Your task to perform on an android device: Open the phone app and click the voicemail tab. Image 0: 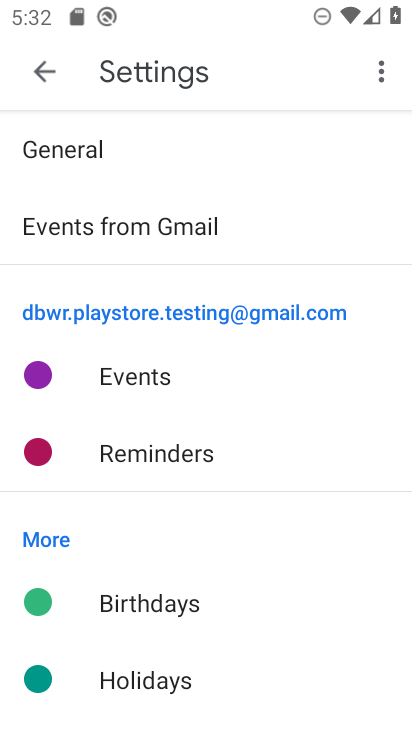
Step 0: press home button
Your task to perform on an android device: Open the phone app and click the voicemail tab. Image 1: 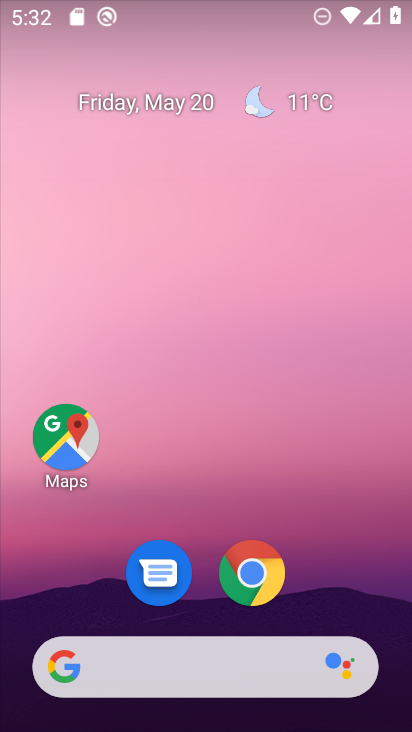
Step 1: drag from (339, 587) to (161, 51)
Your task to perform on an android device: Open the phone app and click the voicemail tab. Image 2: 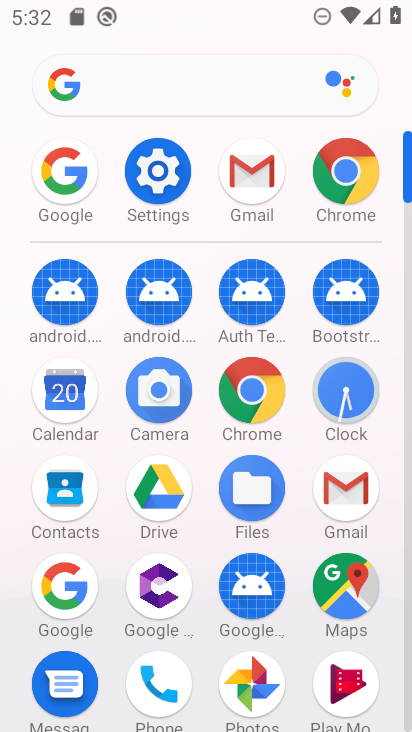
Step 2: click (164, 673)
Your task to perform on an android device: Open the phone app and click the voicemail tab. Image 3: 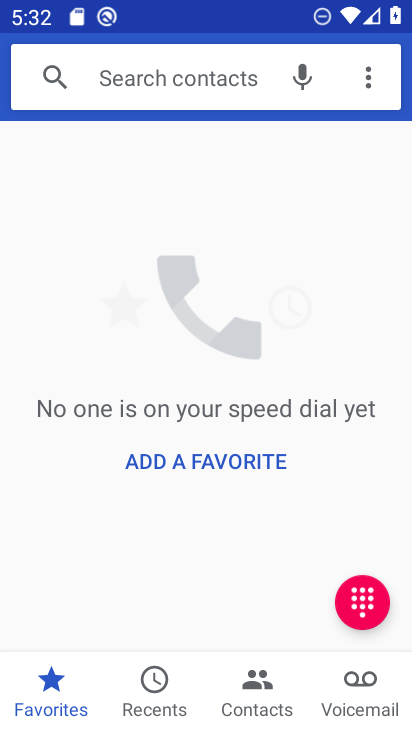
Step 3: click (372, 680)
Your task to perform on an android device: Open the phone app and click the voicemail tab. Image 4: 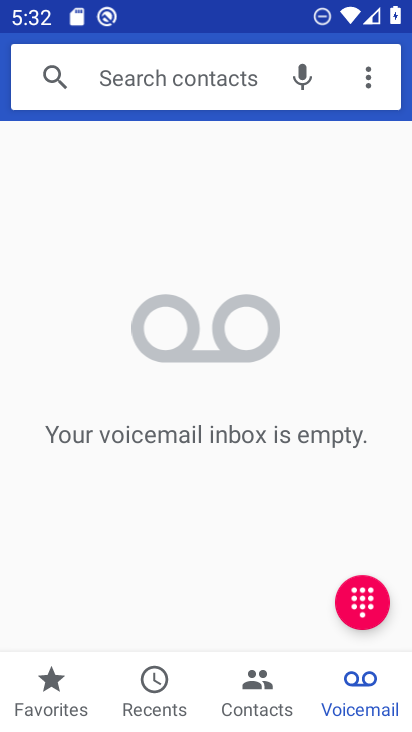
Step 4: task complete